Your task to perform on an android device: Open battery settings Image 0: 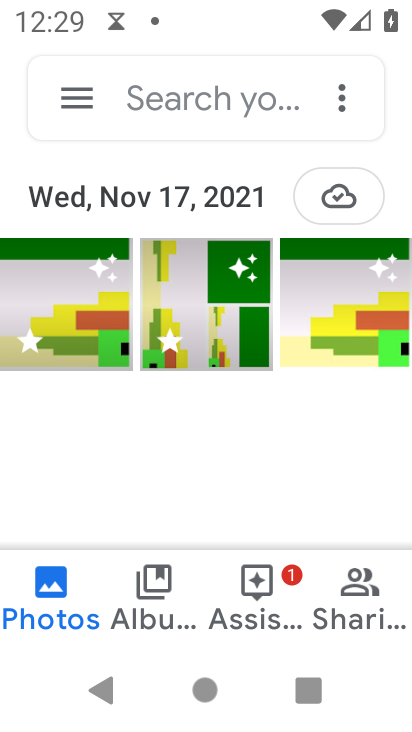
Step 0: press home button
Your task to perform on an android device: Open battery settings Image 1: 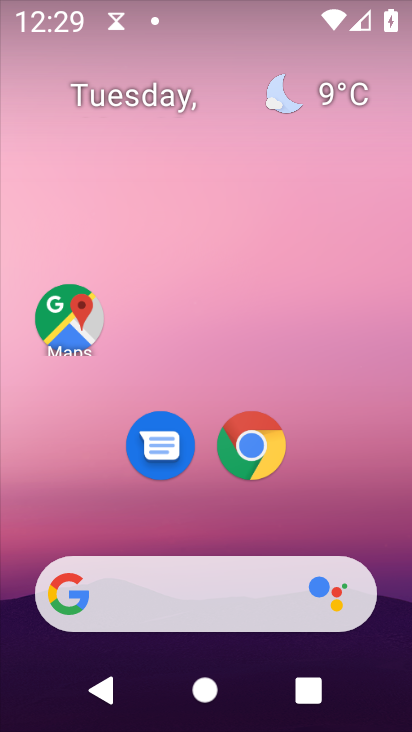
Step 1: drag from (213, 610) to (297, 17)
Your task to perform on an android device: Open battery settings Image 2: 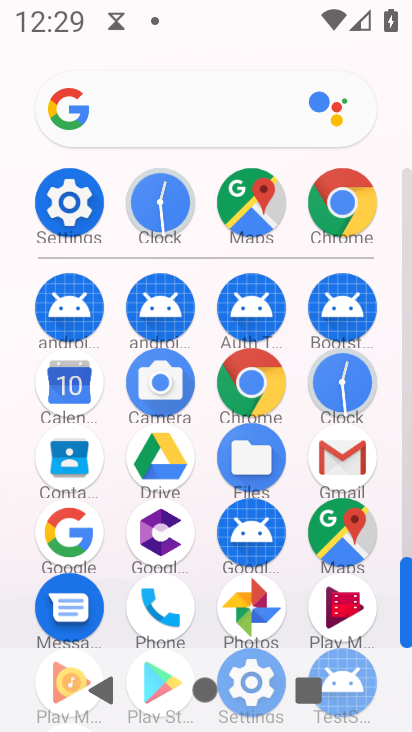
Step 2: click (93, 205)
Your task to perform on an android device: Open battery settings Image 3: 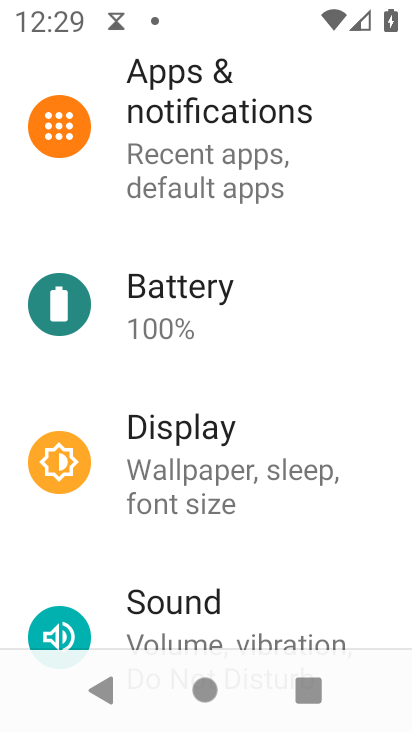
Step 3: click (232, 357)
Your task to perform on an android device: Open battery settings Image 4: 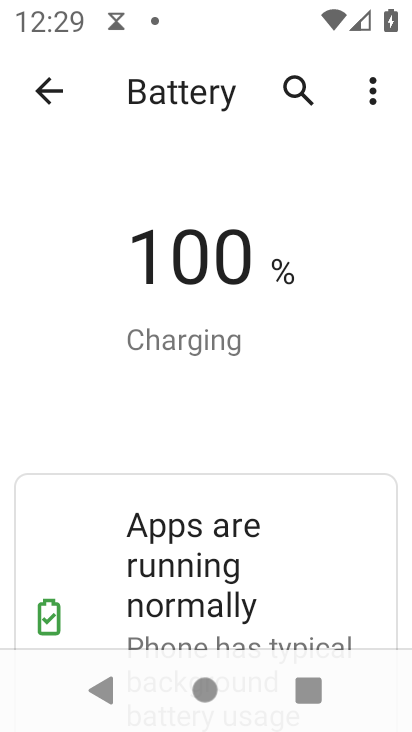
Step 4: task complete